Your task to perform on an android device: add a contact in the contacts app Image 0: 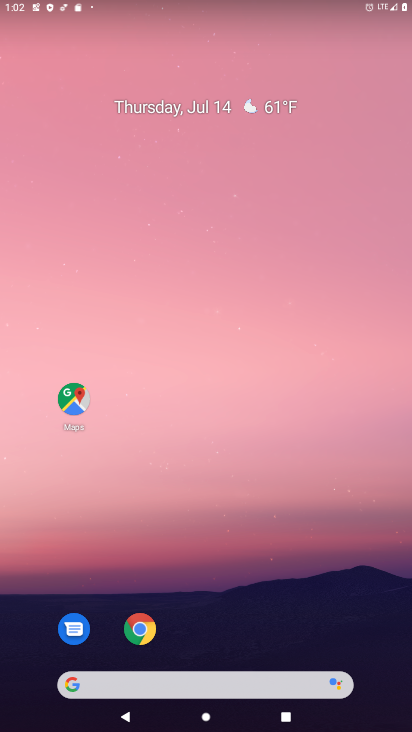
Step 0: drag from (275, 592) to (196, 101)
Your task to perform on an android device: add a contact in the contacts app Image 1: 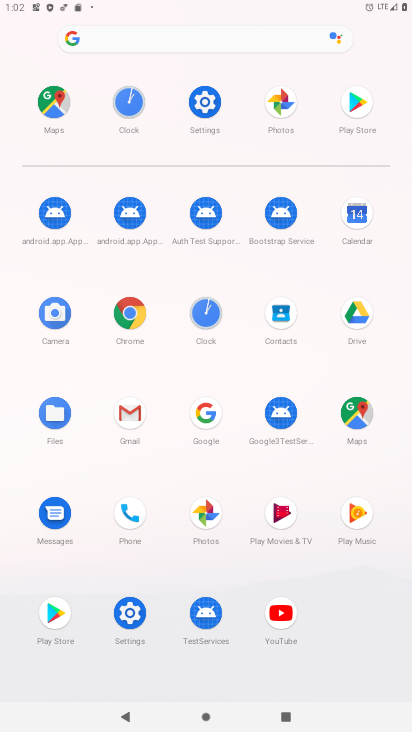
Step 1: click (275, 315)
Your task to perform on an android device: add a contact in the contacts app Image 2: 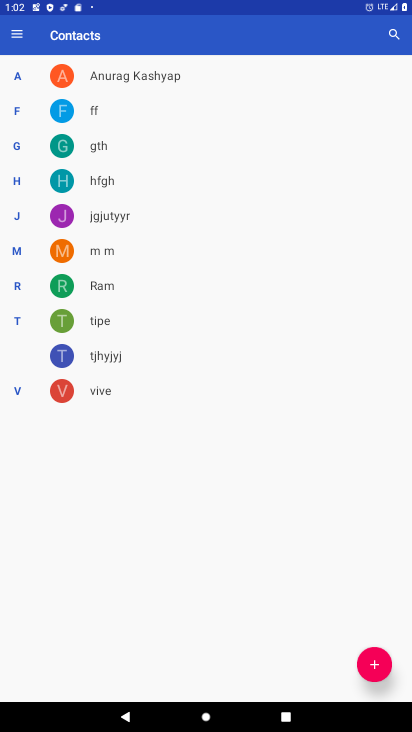
Step 2: click (376, 662)
Your task to perform on an android device: add a contact in the contacts app Image 3: 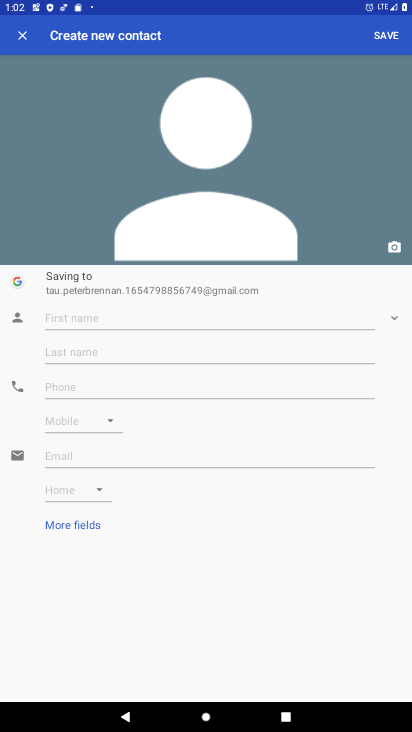
Step 3: click (105, 307)
Your task to perform on an android device: add a contact in the contacts app Image 4: 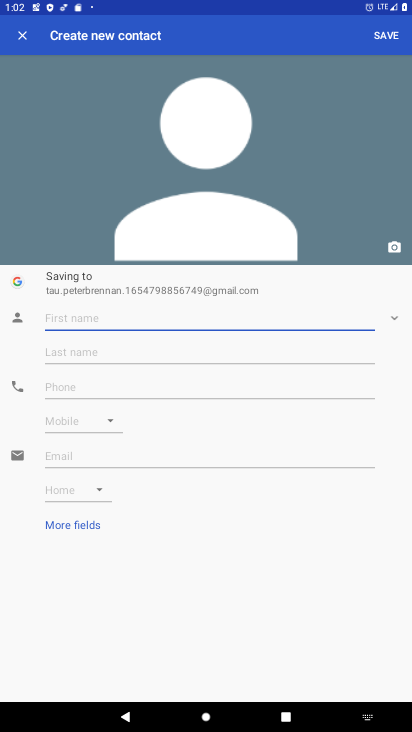
Step 4: type "jai"
Your task to perform on an android device: add a contact in the contacts app Image 5: 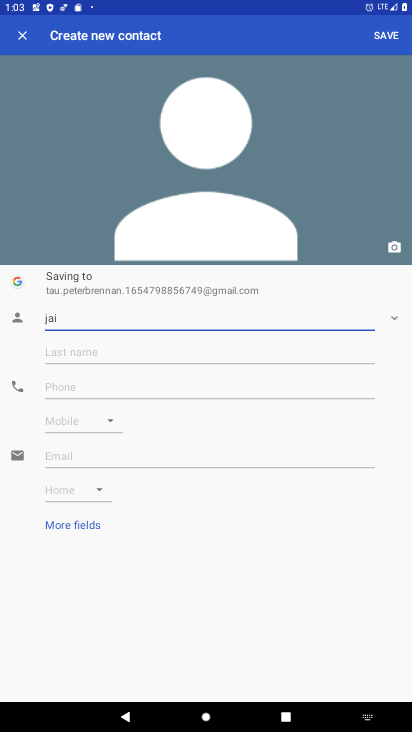
Step 5: click (136, 379)
Your task to perform on an android device: add a contact in the contacts app Image 6: 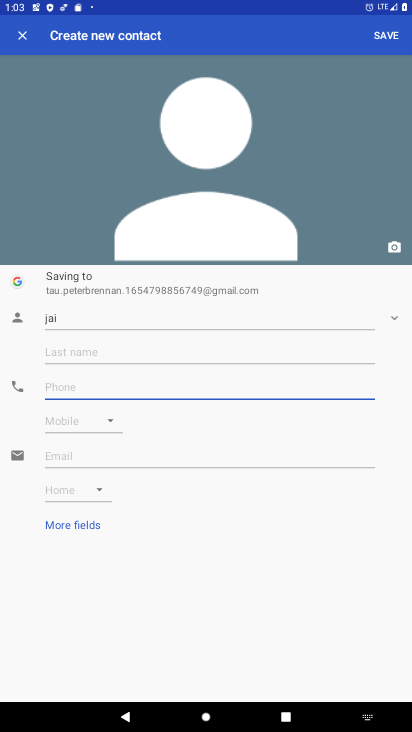
Step 6: type "8800256"
Your task to perform on an android device: add a contact in the contacts app Image 7: 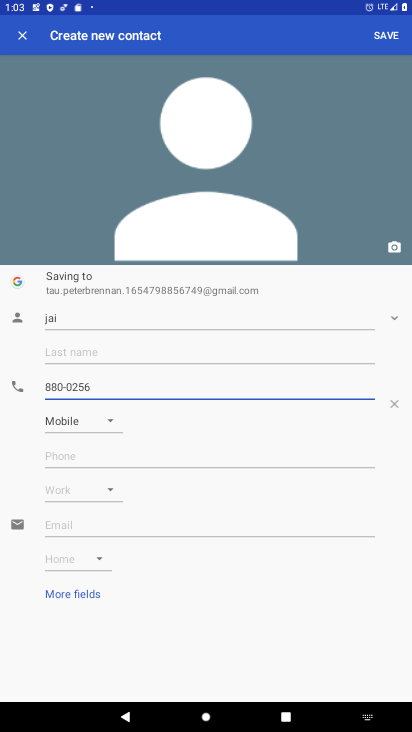
Step 7: click (393, 30)
Your task to perform on an android device: add a contact in the contacts app Image 8: 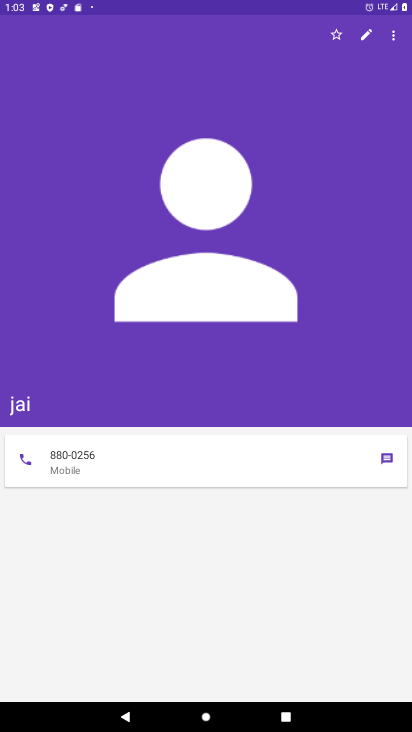
Step 8: task complete